Your task to perform on an android device: turn on priority inbox in the gmail app Image 0: 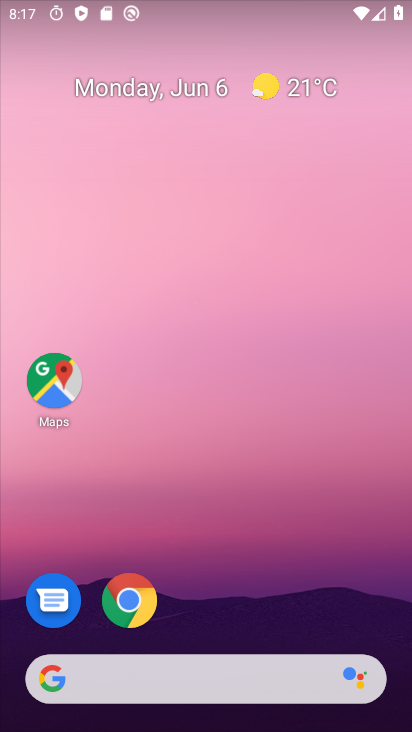
Step 0: drag from (239, 570) to (199, 62)
Your task to perform on an android device: turn on priority inbox in the gmail app Image 1: 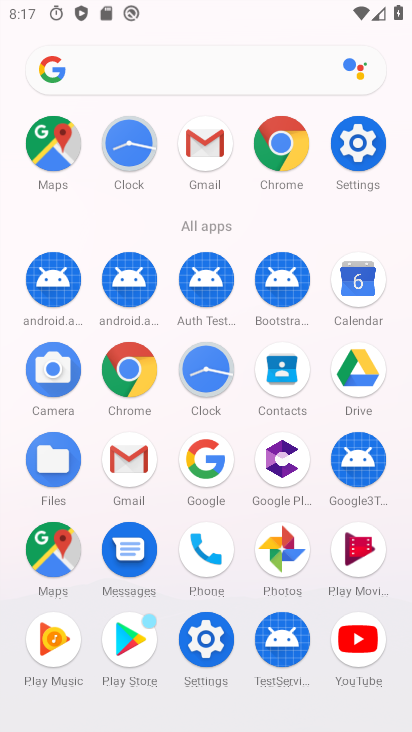
Step 1: drag from (21, 545) to (12, 238)
Your task to perform on an android device: turn on priority inbox in the gmail app Image 2: 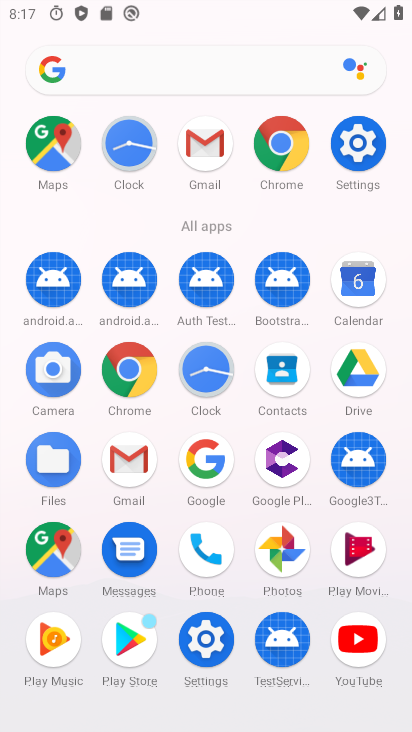
Step 2: click (125, 454)
Your task to perform on an android device: turn on priority inbox in the gmail app Image 3: 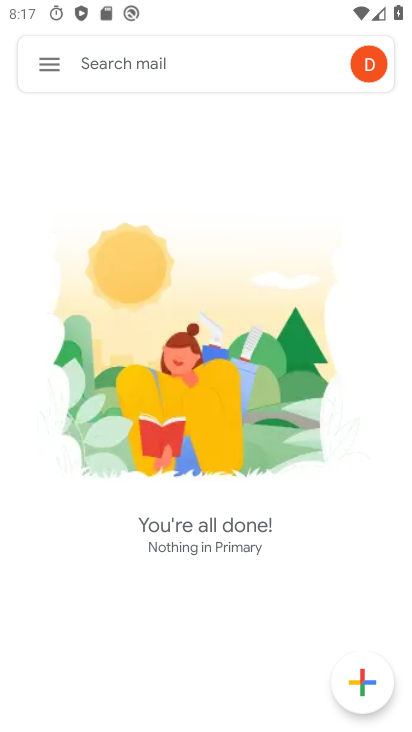
Step 3: click (46, 66)
Your task to perform on an android device: turn on priority inbox in the gmail app Image 4: 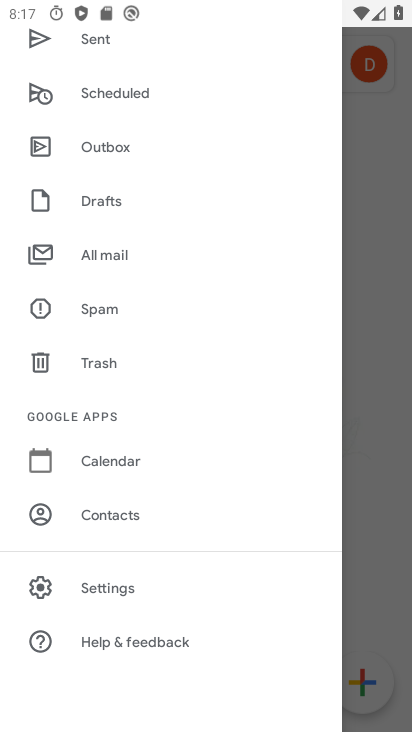
Step 4: click (110, 578)
Your task to perform on an android device: turn on priority inbox in the gmail app Image 5: 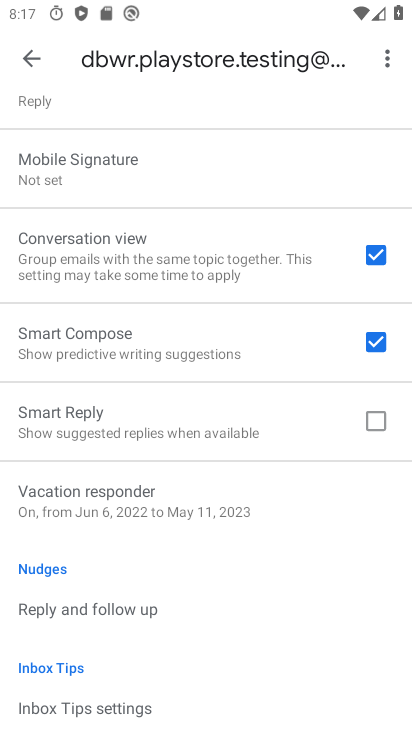
Step 5: drag from (263, 589) to (288, 193)
Your task to perform on an android device: turn on priority inbox in the gmail app Image 6: 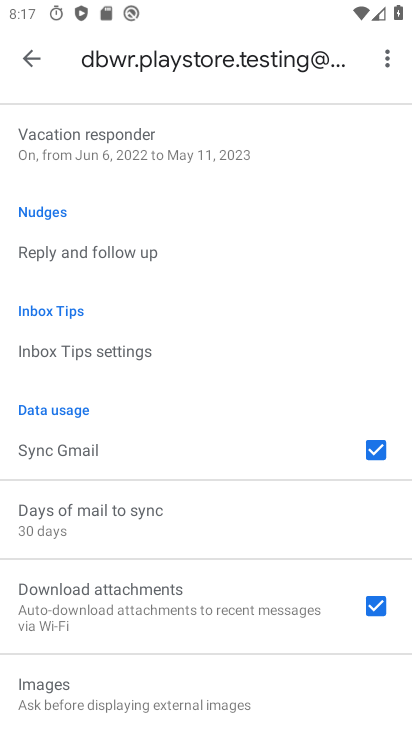
Step 6: drag from (275, 543) to (282, 222)
Your task to perform on an android device: turn on priority inbox in the gmail app Image 7: 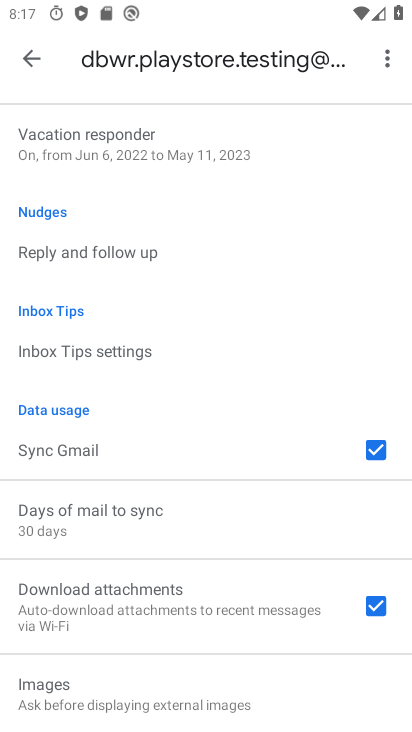
Step 7: drag from (310, 210) to (285, 619)
Your task to perform on an android device: turn on priority inbox in the gmail app Image 8: 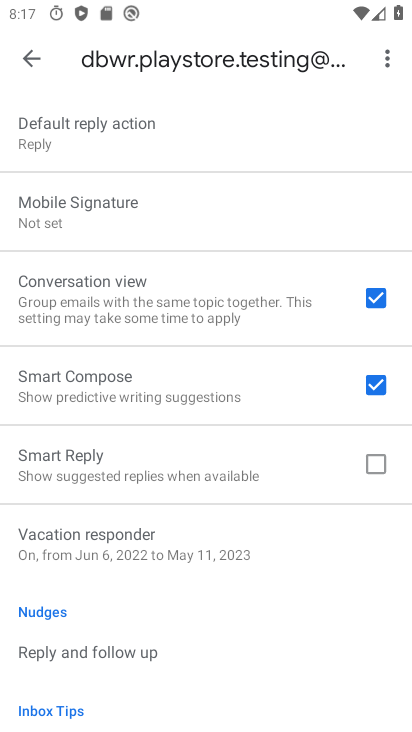
Step 8: drag from (215, 245) to (221, 634)
Your task to perform on an android device: turn on priority inbox in the gmail app Image 9: 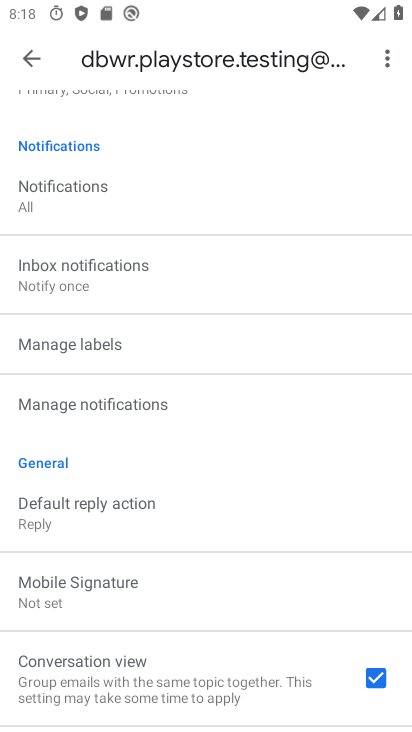
Step 9: drag from (253, 346) to (248, 635)
Your task to perform on an android device: turn on priority inbox in the gmail app Image 10: 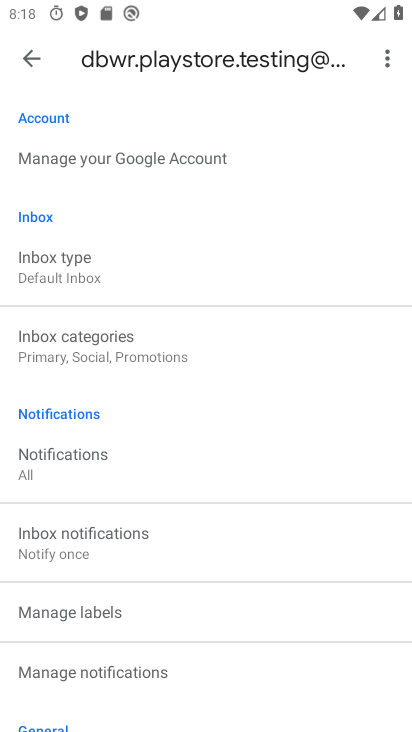
Step 10: click (136, 338)
Your task to perform on an android device: turn on priority inbox in the gmail app Image 11: 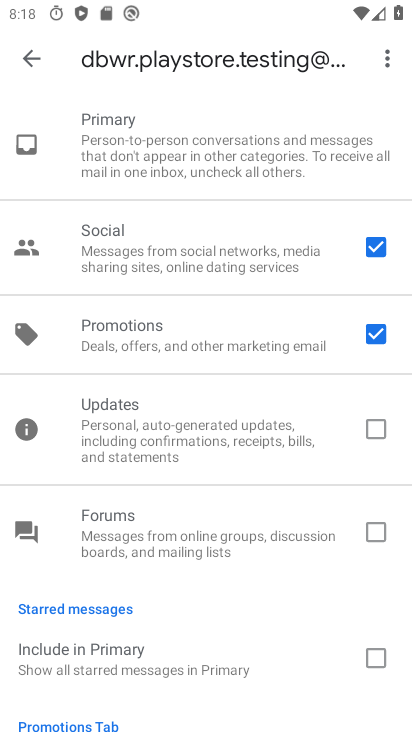
Step 11: click (28, 53)
Your task to perform on an android device: turn on priority inbox in the gmail app Image 12: 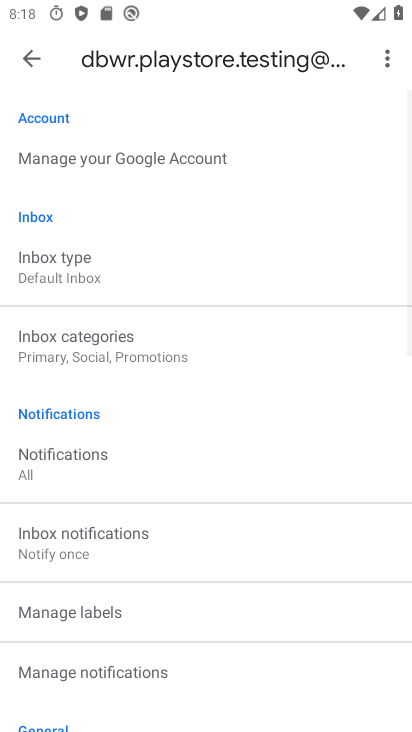
Step 12: click (86, 262)
Your task to perform on an android device: turn on priority inbox in the gmail app Image 13: 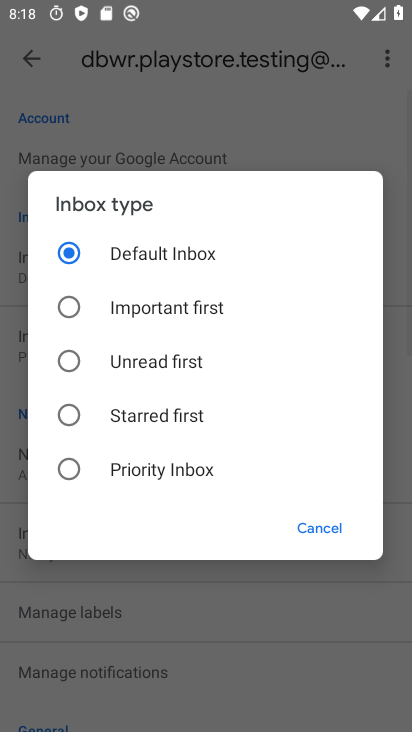
Step 13: click (158, 472)
Your task to perform on an android device: turn on priority inbox in the gmail app Image 14: 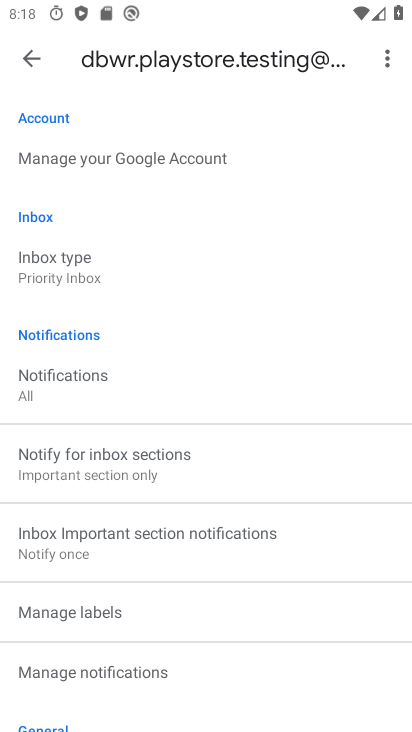
Step 14: task complete